Your task to perform on an android device: find snoozed emails in the gmail app Image 0: 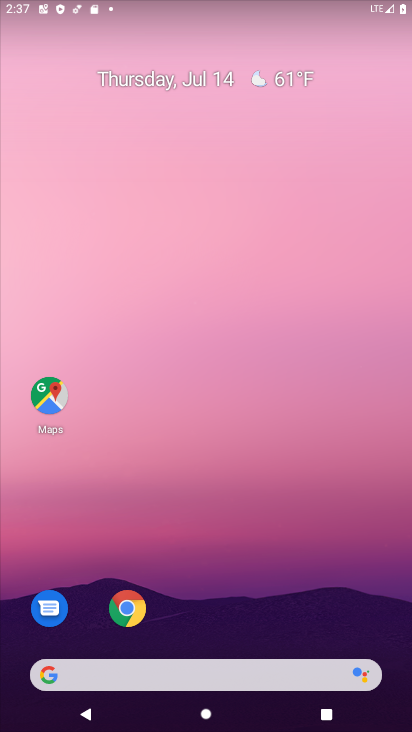
Step 0: drag from (213, 609) to (213, 138)
Your task to perform on an android device: find snoozed emails in the gmail app Image 1: 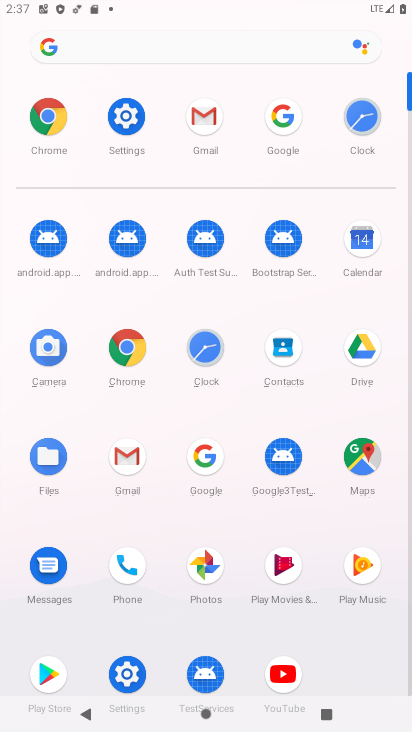
Step 1: click (195, 121)
Your task to perform on an android device: find snoozed emails in the gmail app Image 2: 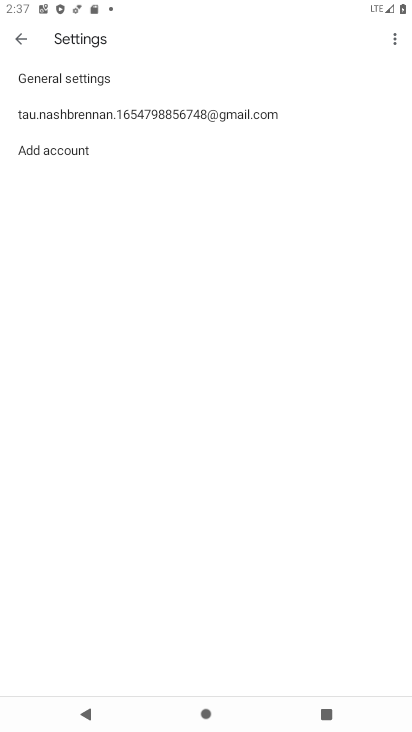
Step 2: click (21, 43)
Your task to perform on an android device: find snoozed emails in the gmail app Image 3: 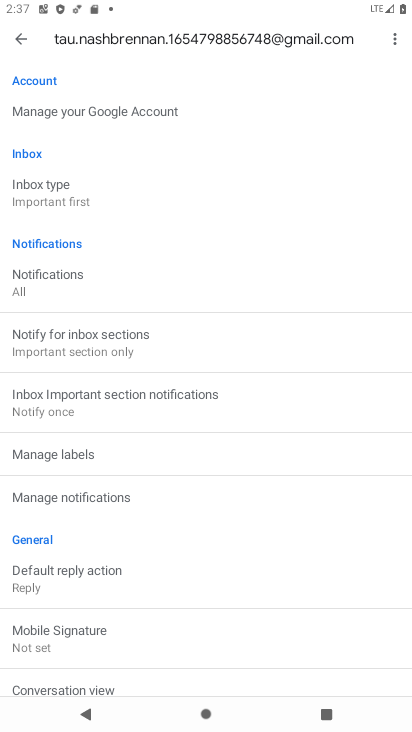
Step 3: click (20, 33)
Your task to perform on an android device: find snoozed emails in the gmail app Image 4: 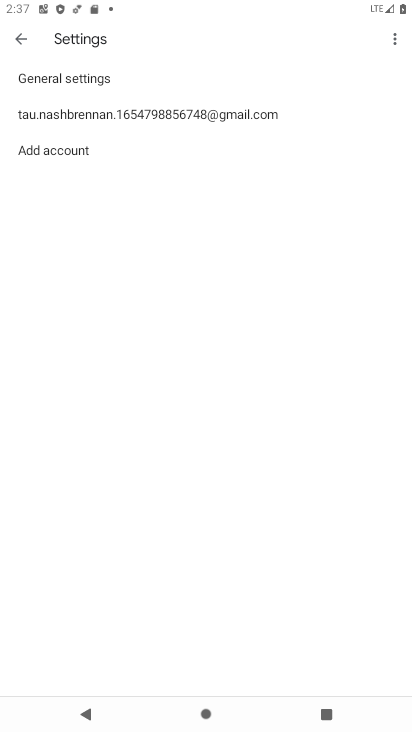
Step 4: click (17, 29)
Your task to perform on an android device: find snoozed emails in the gmail app Image 5: 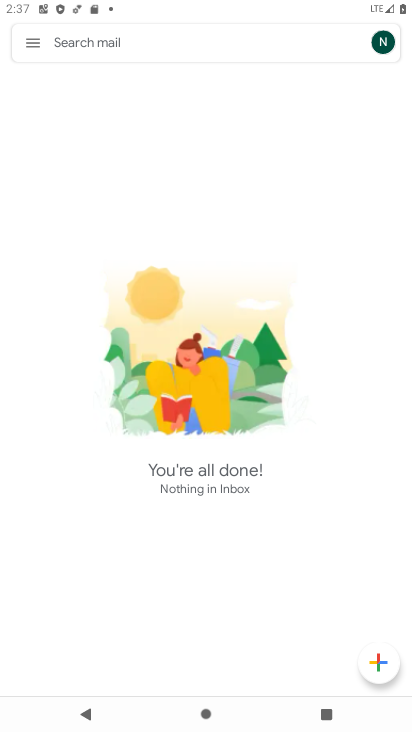
Step 5: click (21, 38)
Your task to perform on an android device: find snoozed emails in the gmail app Image 6: 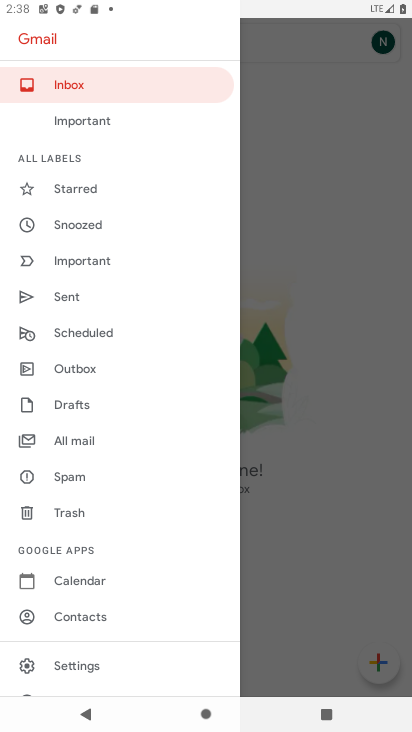
Step 6: click (57, 220)
Your task to perform on an android device: find snoozed emails in the gmail app Image 7: 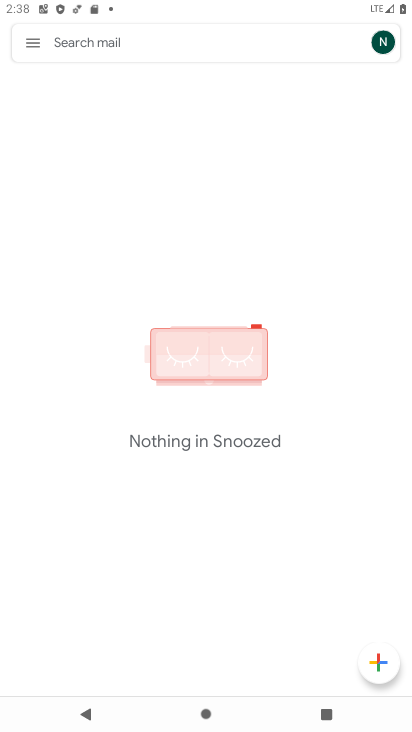
Step 7: task complete